Your task to perform on an android device: open the mobile data screen to see how much data has been used Image 0: 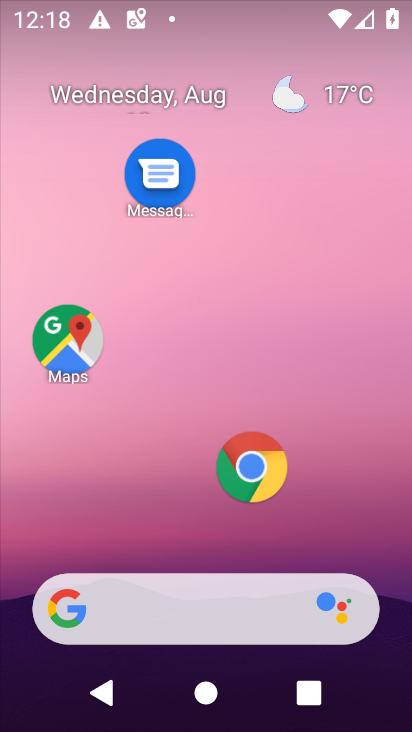
Step 0: drag from (239, 7) to (186, 447)
Your task to perform on an android device: open the mobile data screen to see how much data has been used Image 1: 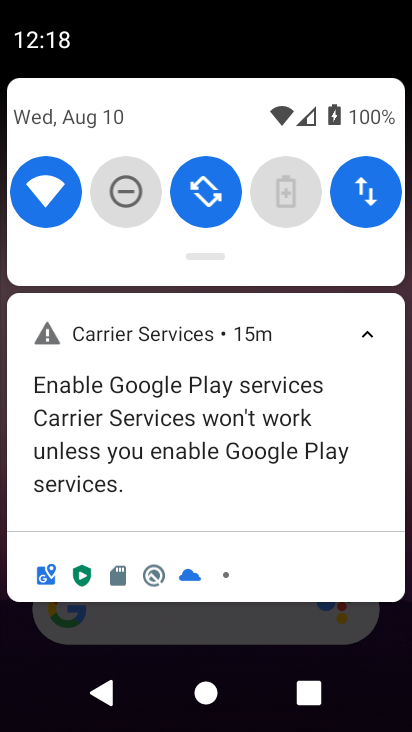
Step 1: click (382, 186)
Your task to perform on an android device: open the mobile data screen to see how much data has been used Image 2: 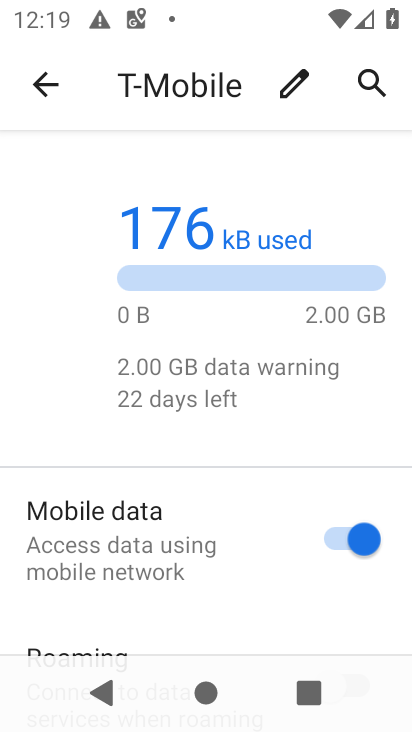
Step 2: task complete